Your task to perform on an android device: make emails show in primary in the gmail app Image 0: 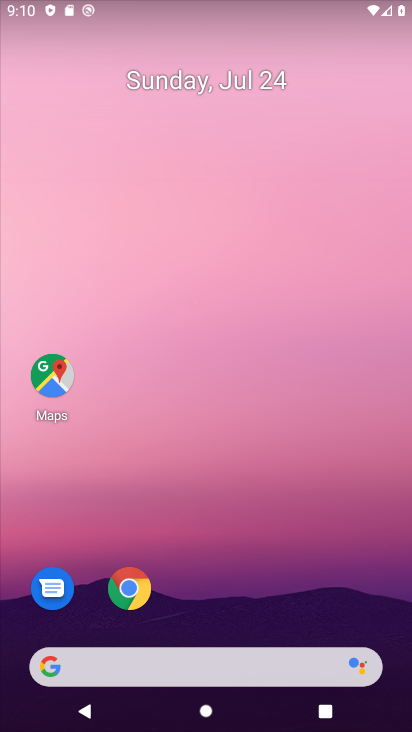
Step 0: drag from (359, 629) to (404, 587)
Your task to perform on an android device: make emails show in primary in the gmail app Image 1: 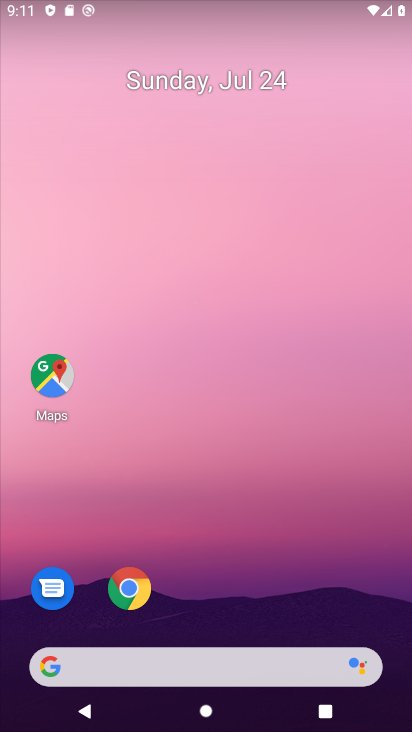
Step 1: drag from (325, 674) to (404, 412)
Your task to perform on an android device: make emails show in primary in the gmail app Image 2: 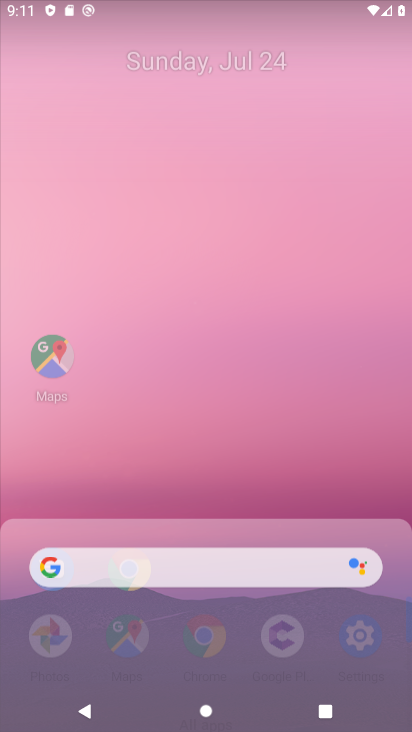
Step 2: click (275, 386)
Your task to perform on an android device: make emails show in primary in the gmail app Image 3: 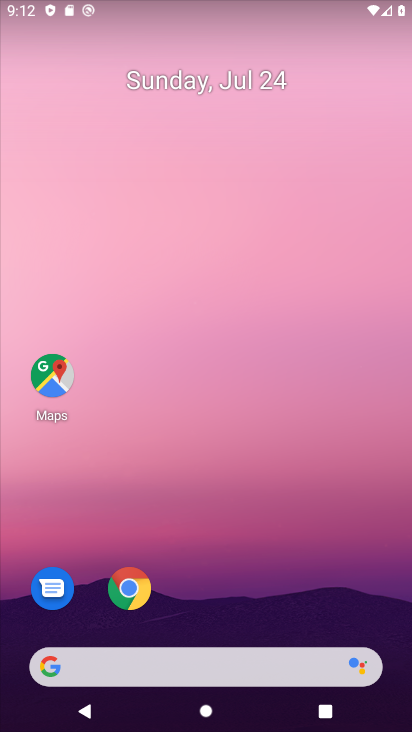
Step 3: drag from (294, 647) to (309, 151)
Your task to perform on an android device: make emails show in primary in the gmail app Image 4: 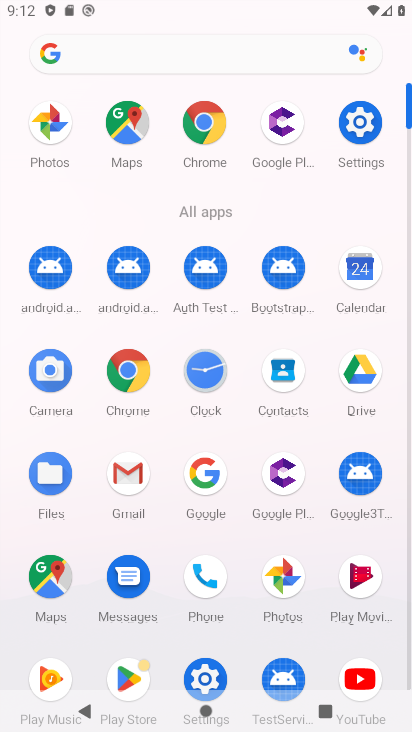
Step 4: click (126, 467)
Your task to perform on an android device: make emails show in primary in the gmail app Image 5: 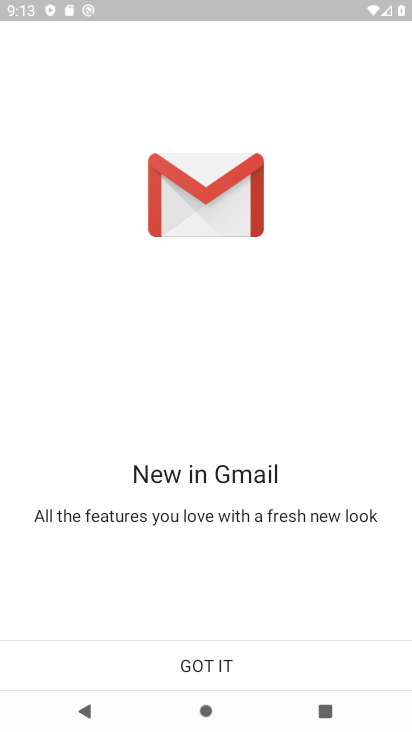
Step 5: click (303, 433)
Your task to perform on an android device: make emails show in primary in the gmail app Image 6: 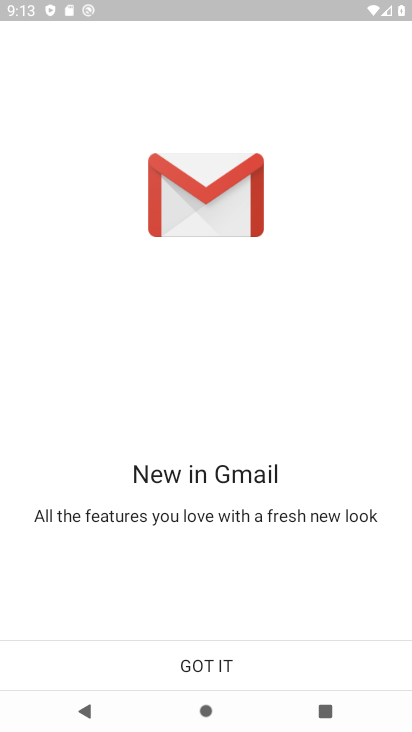
Step 6: press home button
Your task to perform on an android device: make emails show in primary in the gmail app Image 7: 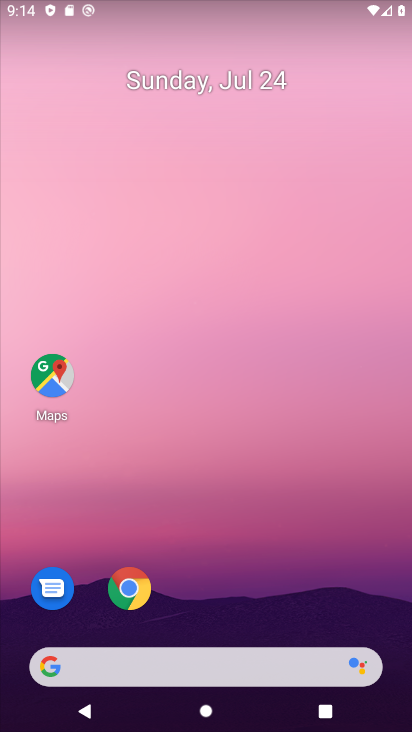
Step 7: drag from (299, 678) to (250, 133)
Your task to perform on an android device: make emails show in primary in the gmail app Image 8: 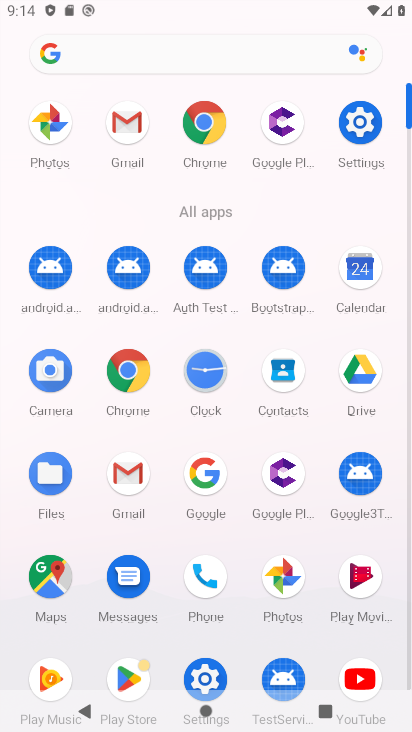
Step 8: click (115, 118)
Your task to perform on an android device: make emails show in primary in the gmail app Image 9: 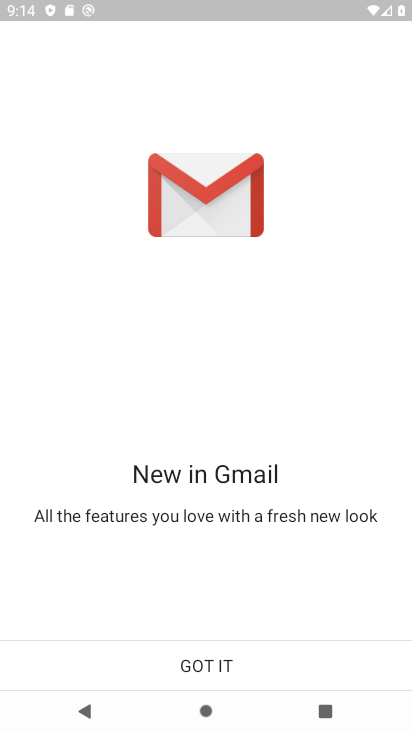
Step 9: click (222, 668)
Your task to perform on an android device: make emails show in primary in the gmail app Image 10: 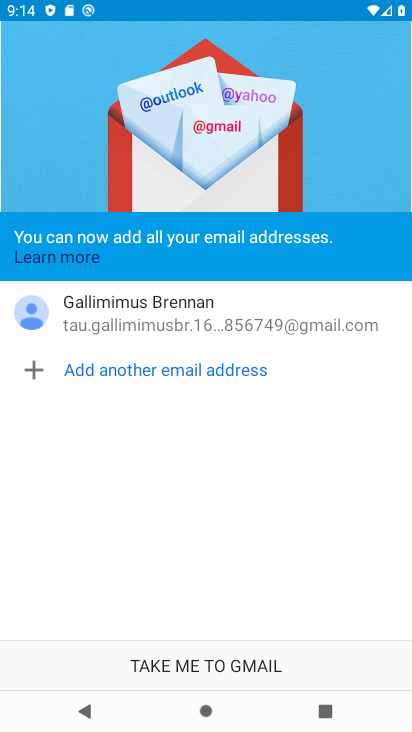
Step 10: click (222, 667)
Your task to perform on an android device: make emails show in primary in the gmail app Image 11: 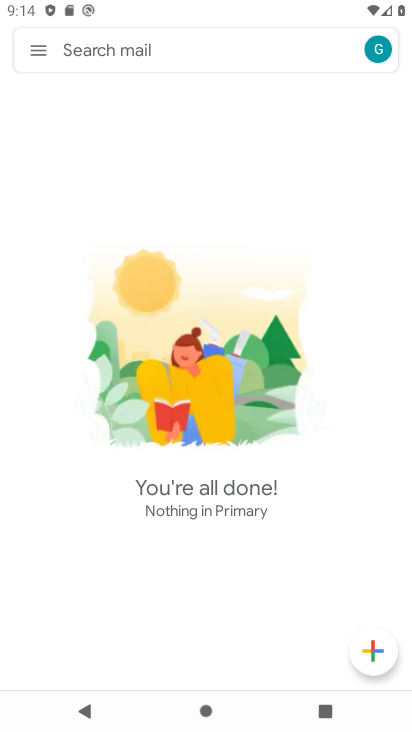
Step 11: click (334, 407)
Your task to perform on an android device: make emails show in primary in the gmail app Image 12: 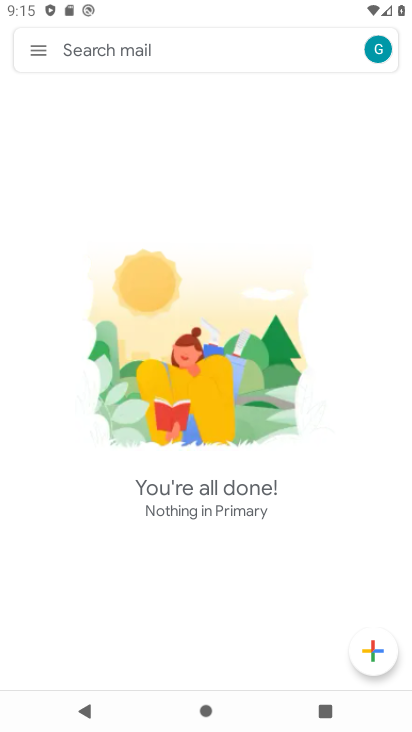
Step 12: click (43, 44)
Your task to perform on an android device: make emails show in primary in the gmail app Image 13: 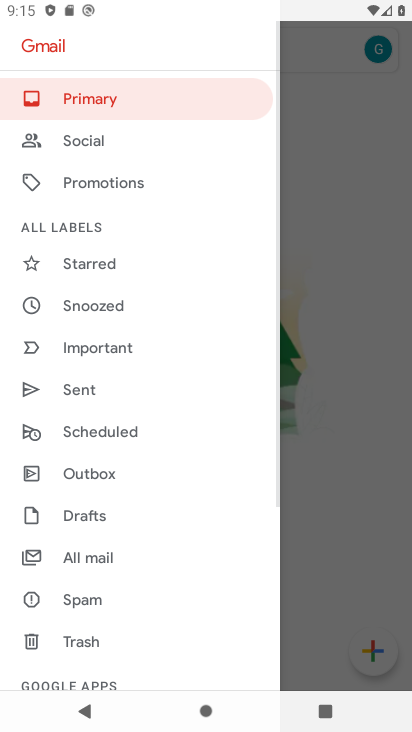
Step 13: drag from (106, 663) to (141, 259)
Your task to perform on an android device: make emails show in primary in the gmail app Image 14: 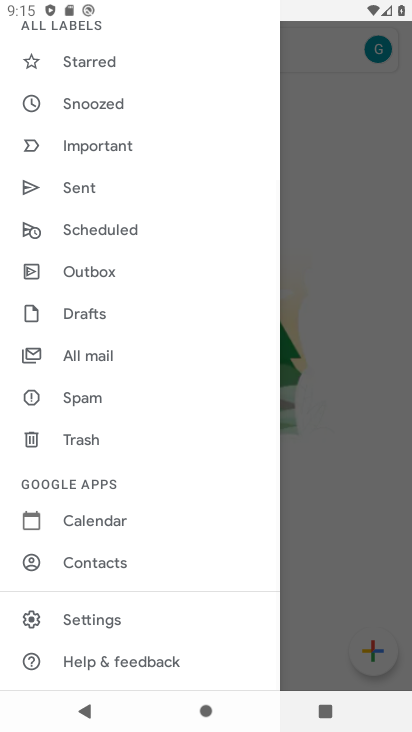
Step 14: click (109, 677)
Your task to perform on an android device: make emails show in primary in the gmail app Image 15: 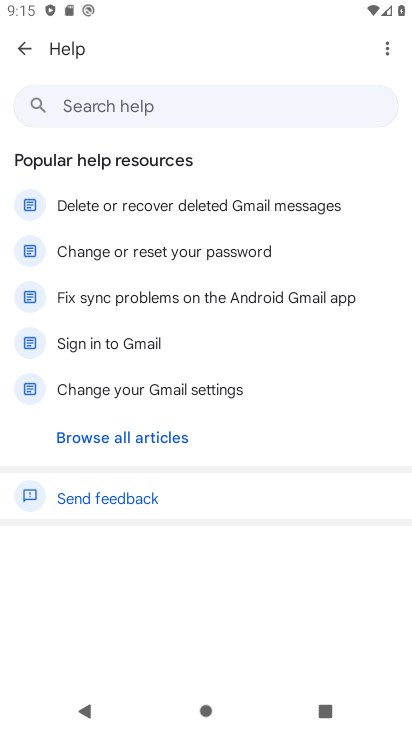
Step 15: press back button
Your task to perform on an android device: make emails show in primary in the gmail app Image 16: 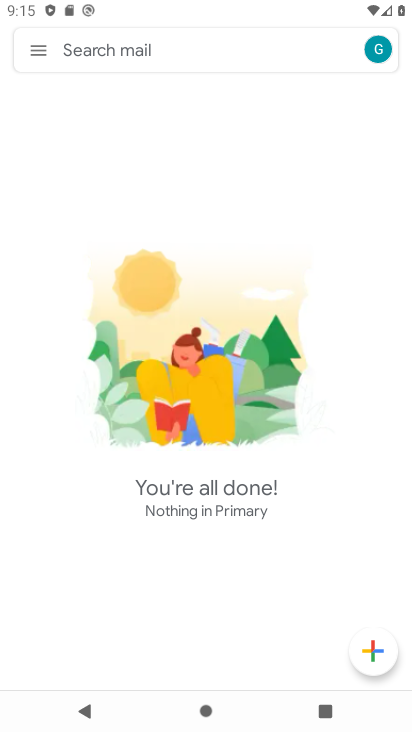
Step 16: click (52, 54)
Your task to perform on an android device: make emails show in primary in the gmail app Image 17: 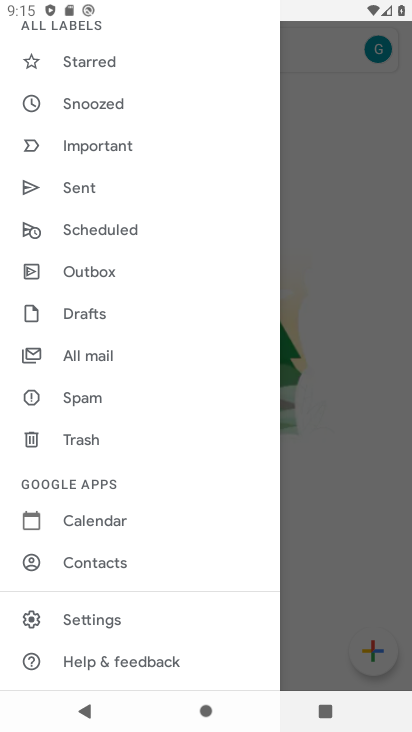
Step 17: click (113, 626)
Your task to perform on an android device: make emails show in primary in the gmail app Image 18: 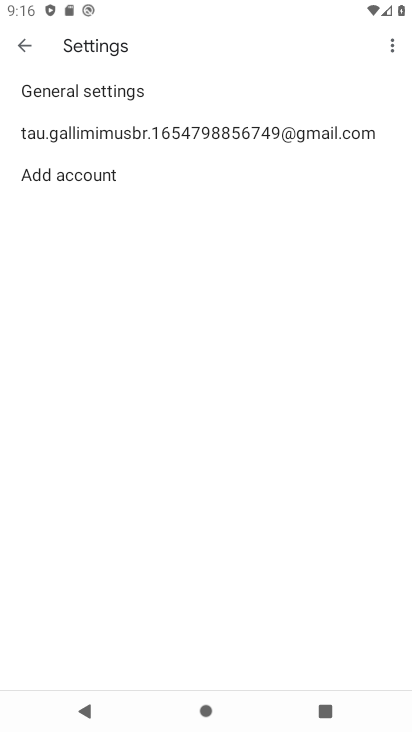
Step 18: click (220, 126)
Your task to perform on an android device: make emails show in primary in the gmail app Image 19: 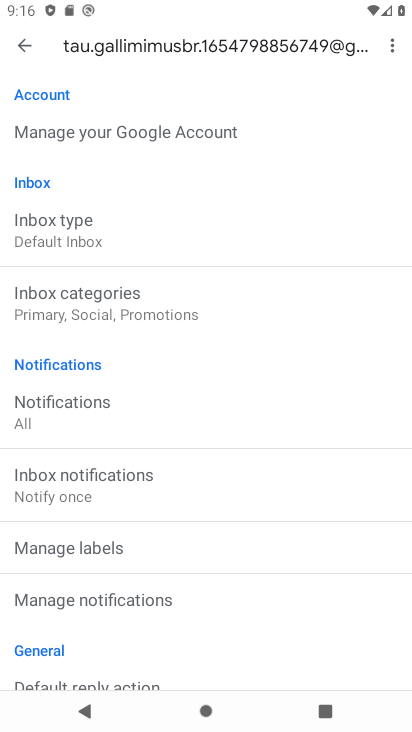
Step 19: click (100, 247)
Your task to perform on an android device: make emails show in primary in the gmail app Image 20: 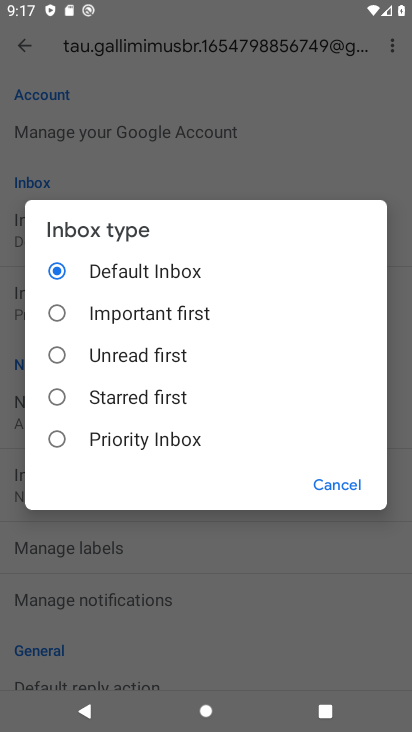
Step 20: press back button
Your task to perform on an android device: make emails show in primary in the gmail app Image 21: 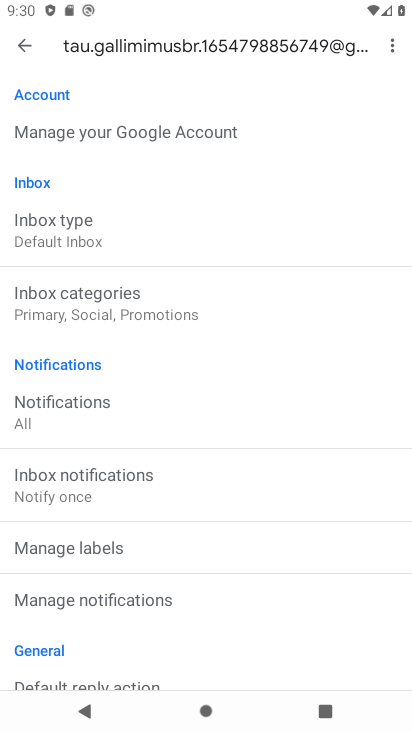
Step 21: press home button
Your task to perform on an android device: make emails show in primary in the gmail app Image 22: 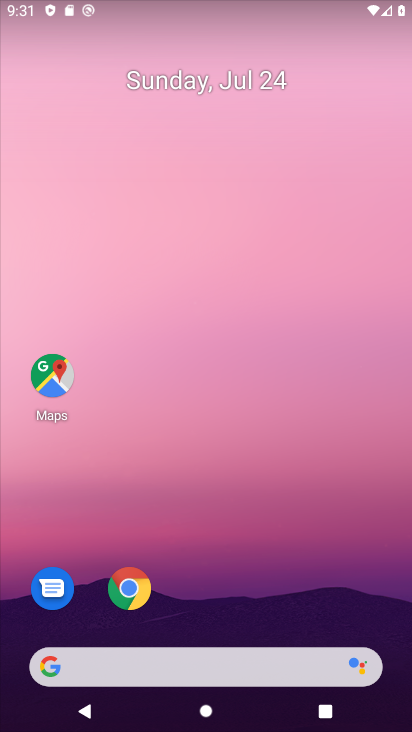
Step 22: drag from (229, 636) to (391, 0)
Your task to perform on an android device: make emails show in primary in the gmail app Image 23: 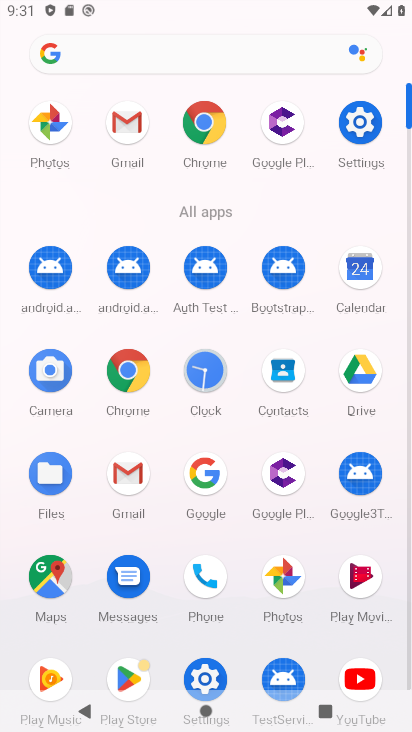
Step 23: click (121, 481)
Your task to perform on an android device: make emails show in primary in the gmail app Image 24: 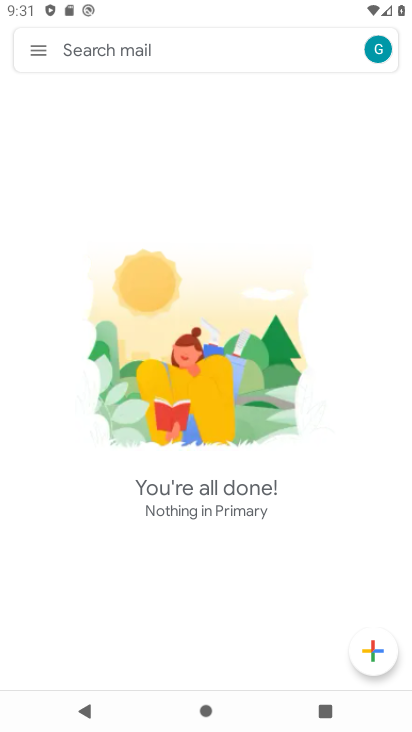
Step 24: click (53, 48)
Your task to perform on an android device: make emails show in primary in the gmail app Image 25: 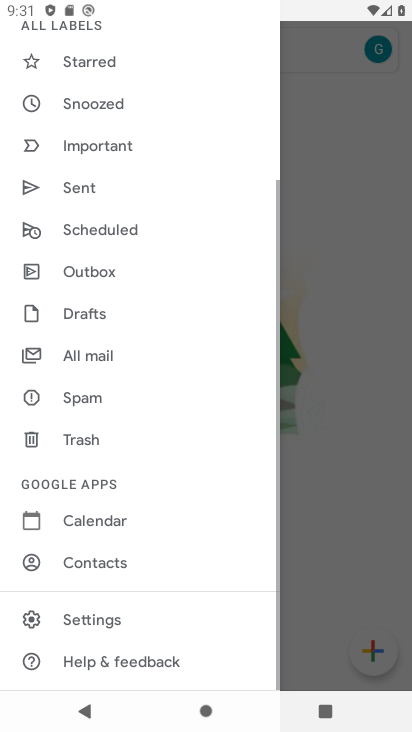
Step 25: click (127, 630)
Your task to perform on an android device: make emails show in primary in the gmail app Image 26: 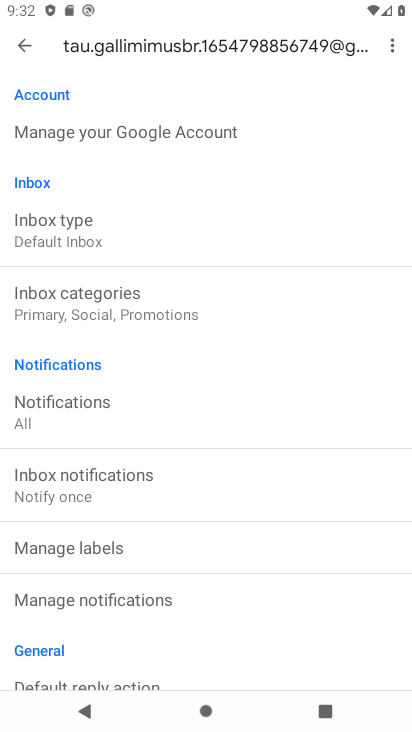
Step 26: task complete